Your task to perform on an android device: toggle priority inbox in the gmail app Image 0: 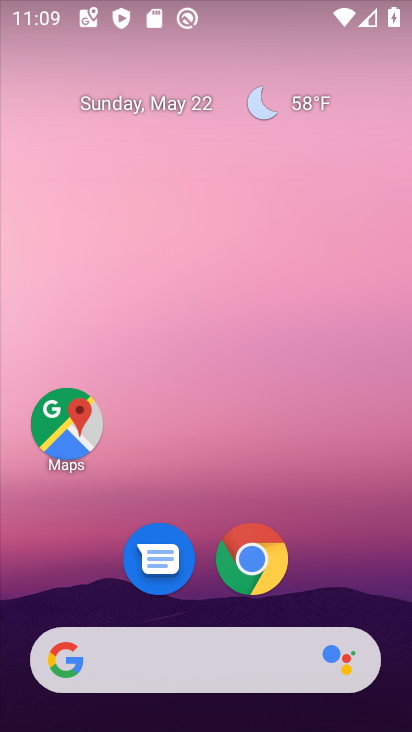
Step 0: drag from (222, 646) to (185, 220)
Your task to perform on an android device: toggle priority inbox in the gmail app Image 1: 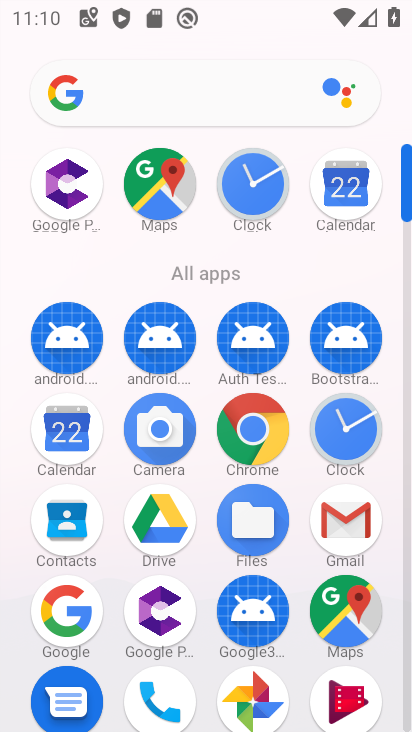
Step 1: click (336, 537)
Your task to perform on an android device: toggle priority inbox in the gmail app Image 2: 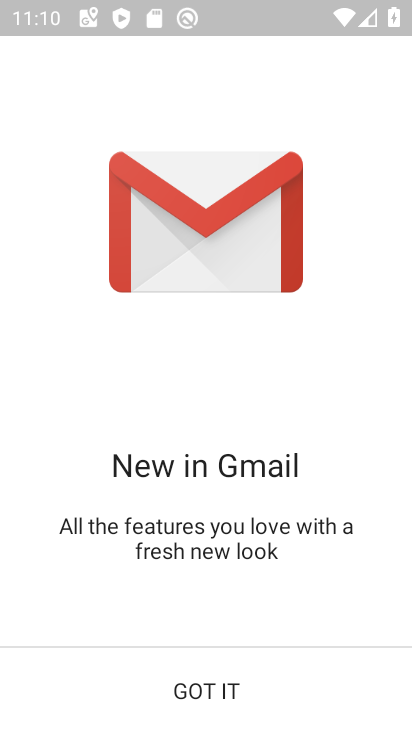
Step 2: click (204, 690)
Your task to perform on an android device: toggle priority inbox in the gmail app Image 3: 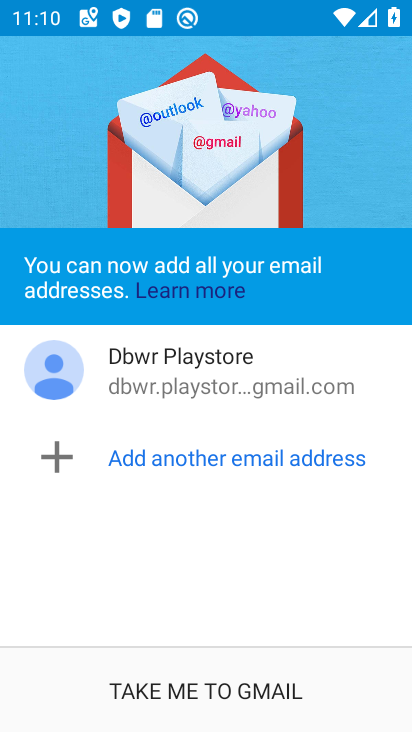
Step 3: click (185, 678)
Your task to perform on an android device: toggle priority inbox in the gmail app Image 4: 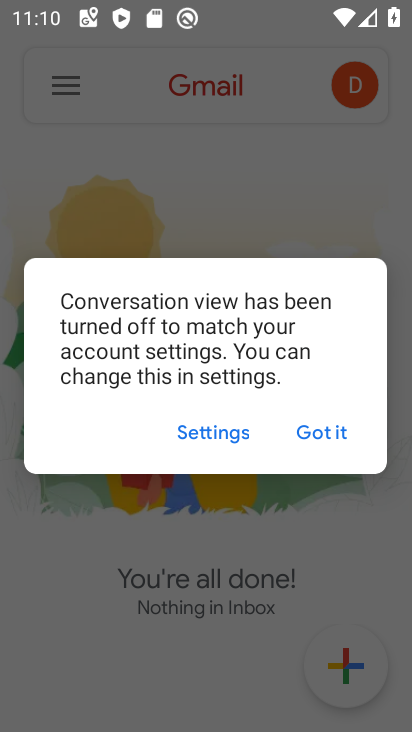
Step 4: click (333, 436)
Your task to perform on an android device: toggle priority inbox in the gmail app Image 5: 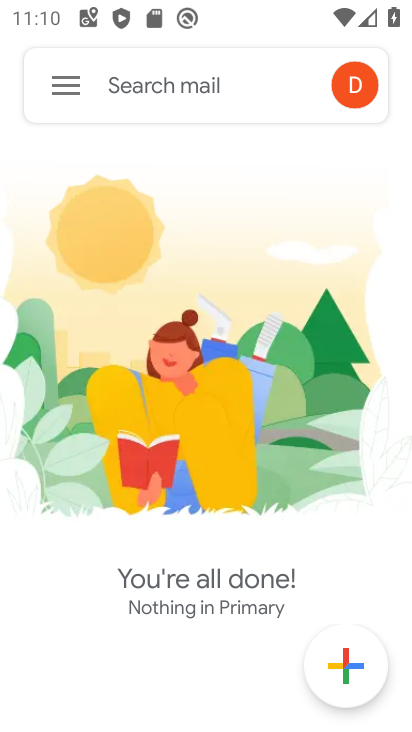
Step 5: click (61, 93)
Your task to perform on an android device: toggle priority inbox in the gmail app Image 6: 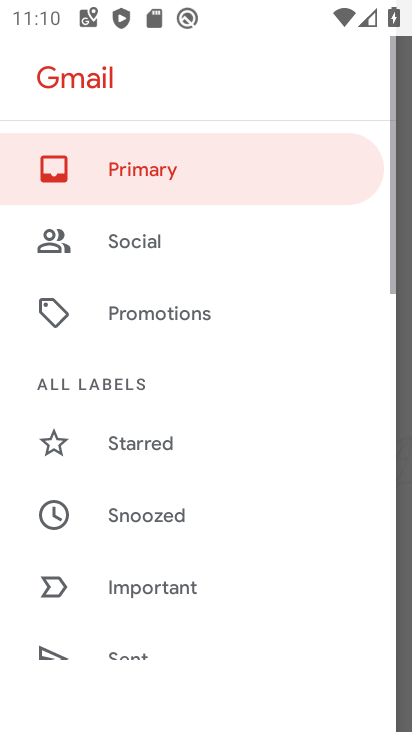
Step 6: drag from (116, 555) to (140, 167)
Your task to perform on an android device: toggle priority inbox in the gmail app Image 7: 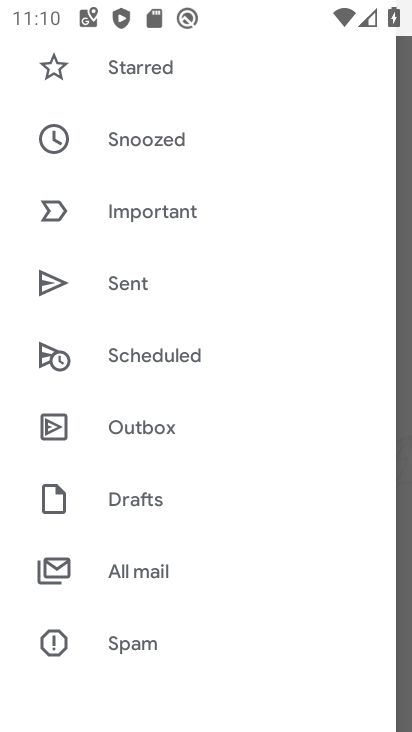
Step 7: drag from (183, 635) to (129, 19)
Your task to perform on an android device: toggle priority inbox in the gmail app Image 8: 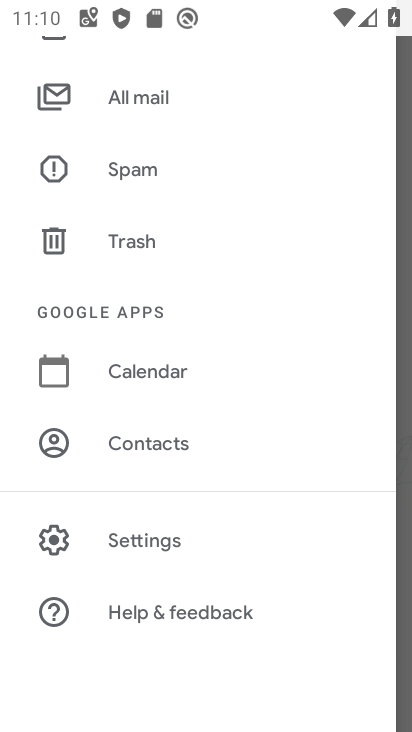
Step 8: click (149, 551)
Your task to perform on an android device: toggle priority inbox in the gmail app Image 9: 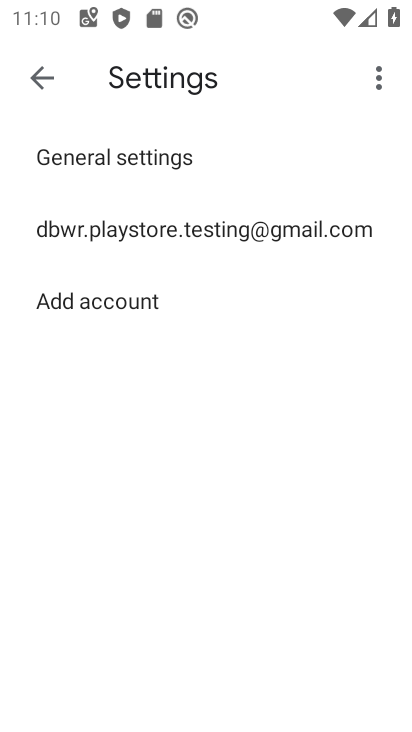
Step 9: click (117, 231)
Your task to perform on an android device: toggle priority inbox in the gmail app Image 10: 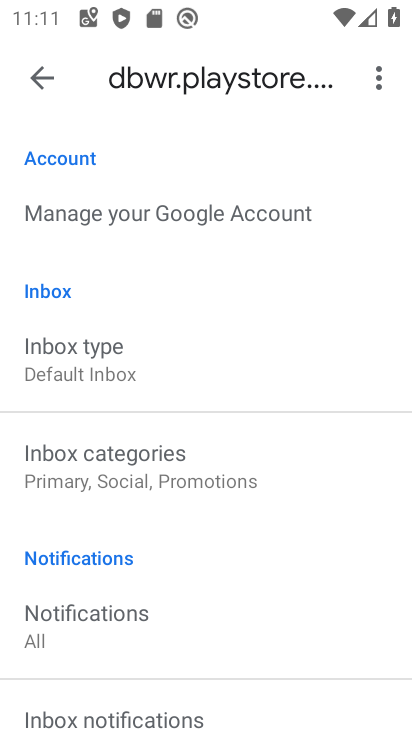
Step 10: click (110, 362)
Your task to perform on an android device: toggle priority inbox in the gmail app Image 11: 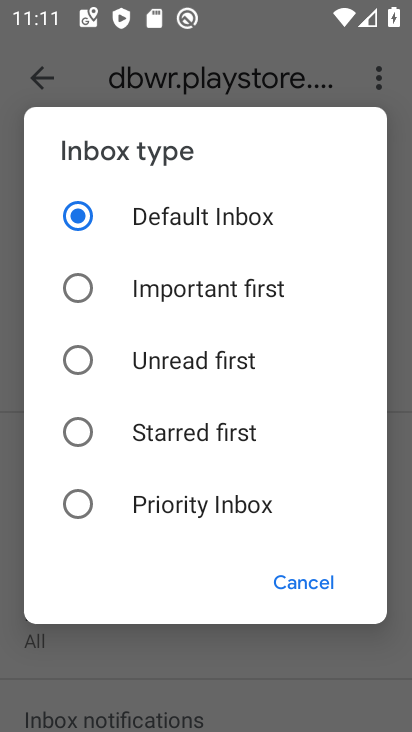
Step 11: click (177, 508)
Your task to perform on an android device: toggle priority inbox in the gmail app Image 12: 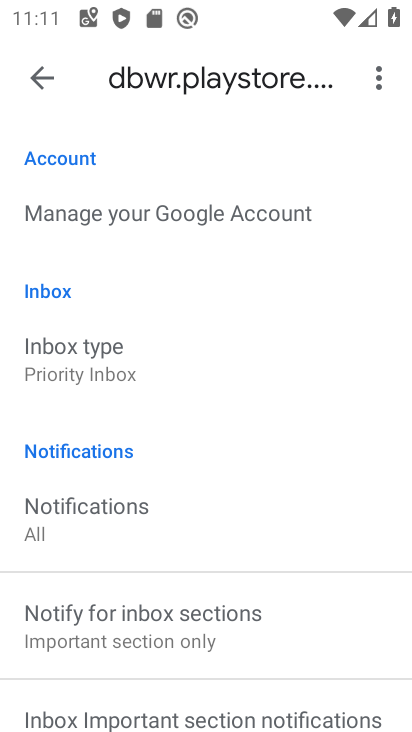
Step 12: task complete